Your task to perform on an android device: Go to network settings Image 0: 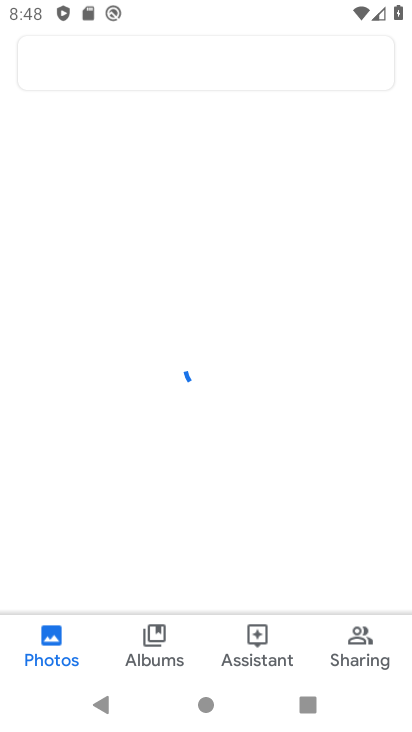
Step 0: press home button
Your task to perform on an android device: Go to network settings Image 1: 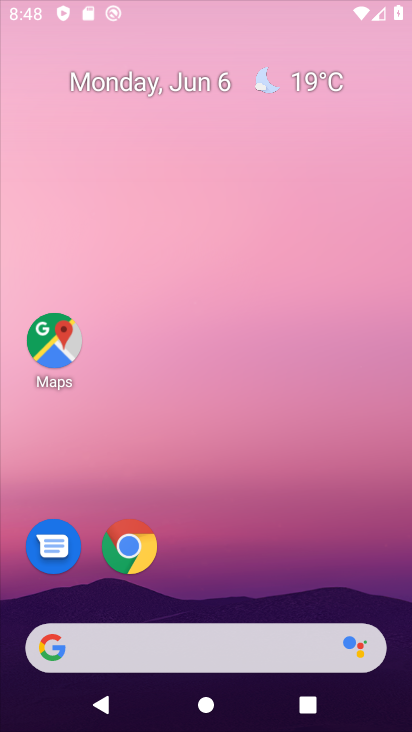
Step 1: drag from (151, 719) to (272, 127)
Your task to perform on an android device: Go to network settings Image 2: 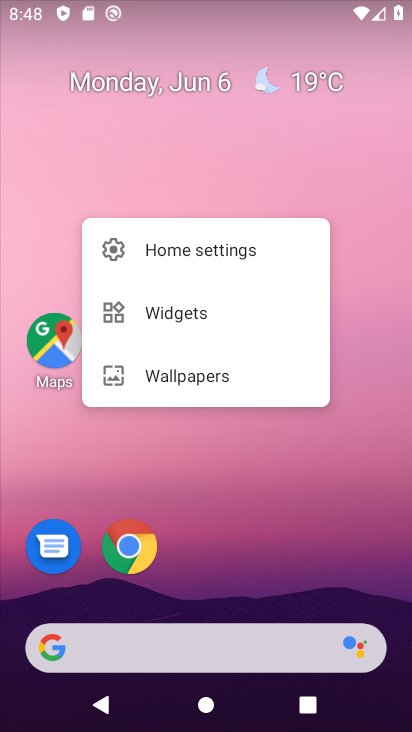
Step 2: press home button
Your task to perform on an android device: Go to network settings Image 3: 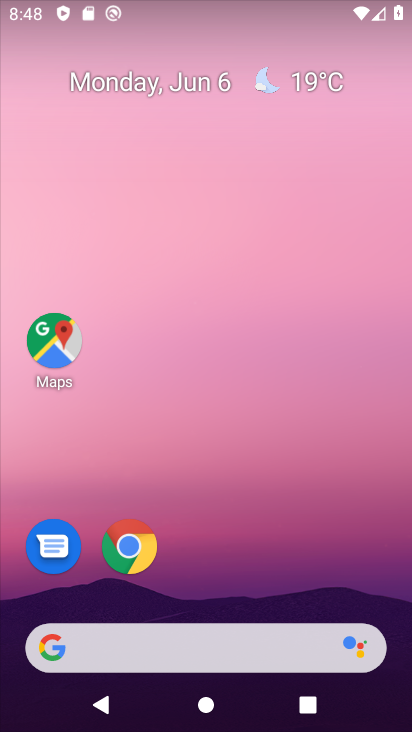
Step 3: drag from (152, 724) to (253, 91)
Your task to perform on an android device: Go to network settings Image 4: 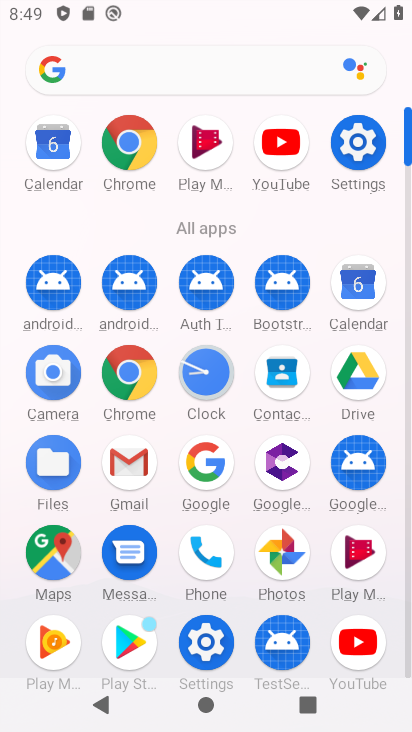
Step 4: click (337, 158)
Your task to perform on an android device: Go to network settings Image 5: 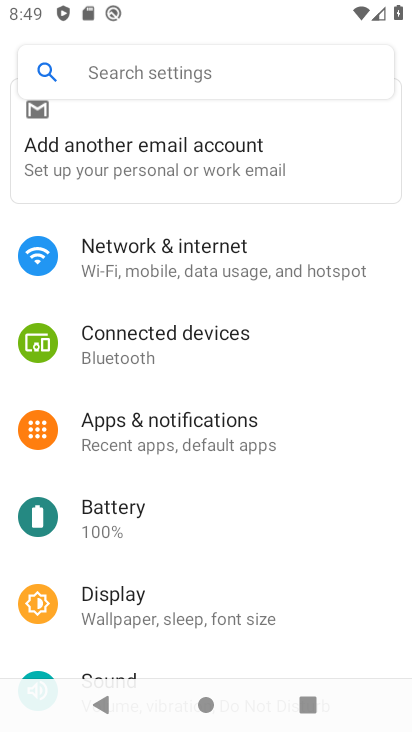
Step 5: click (166, 288)
Your task to perform on an android device: Go to network settings Image 6: 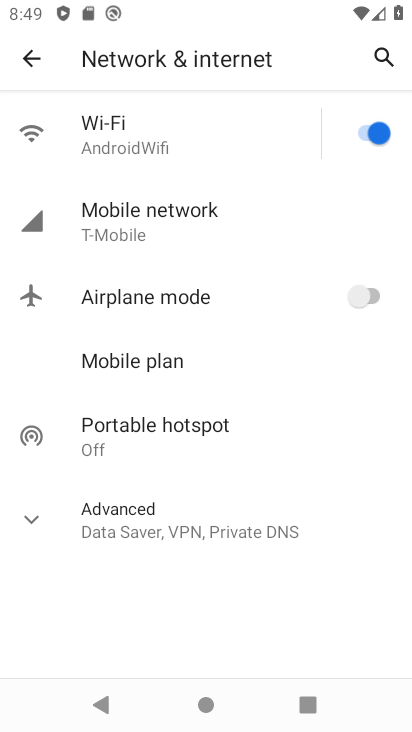
Step 6: click (175, 239)
Your task to perform on an android device: Go to network settings Image 7: 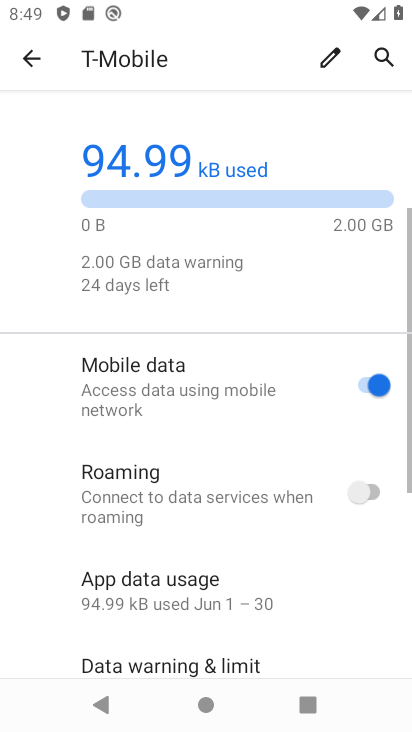
Step 7: drag from (137, 601) to (181, 241)
Your task to perform on an android device: Go to network settings Image 8: 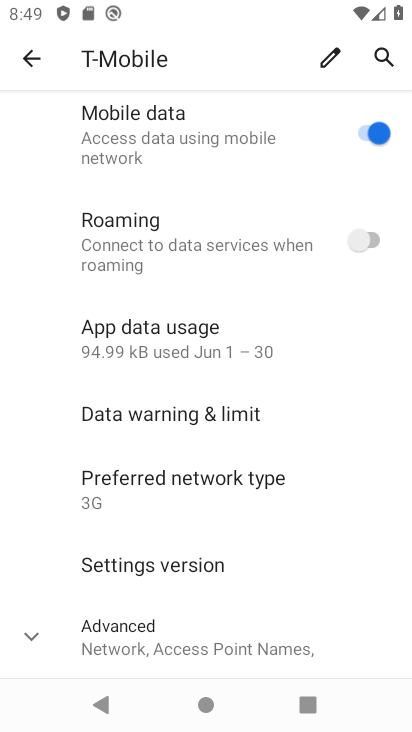
Step 8: drag from (186, 584) to (166, 393)
Your task to perform on an android device: Go to network settings Image 9: 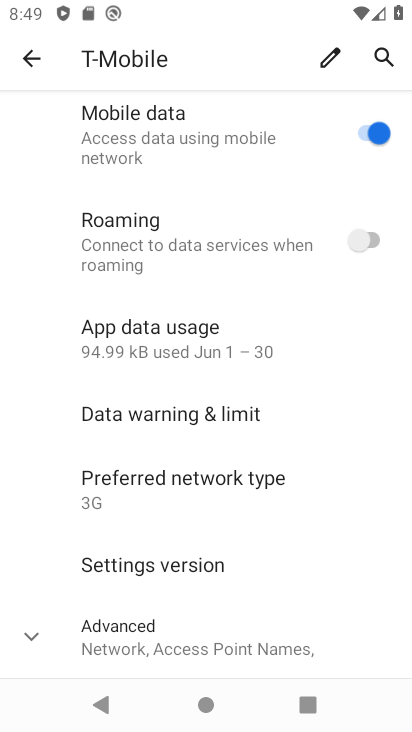
Step 9: click (139, 633)
Your task to perform on an android device: Go to network settings Image 10: 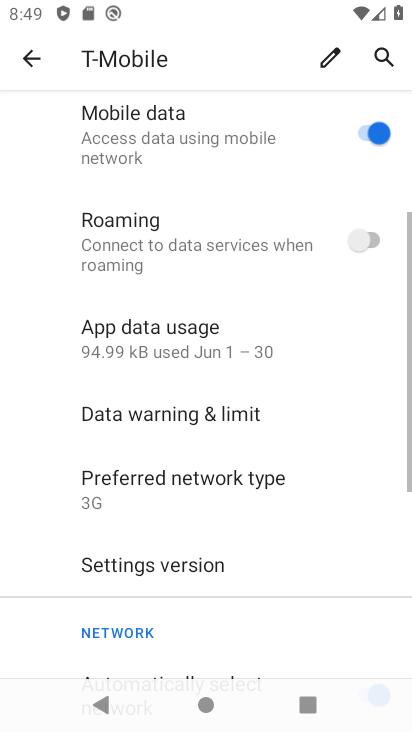
Step 10: task complete